Your task to perform on an android device: open a new tab in the chrome app Image 0: 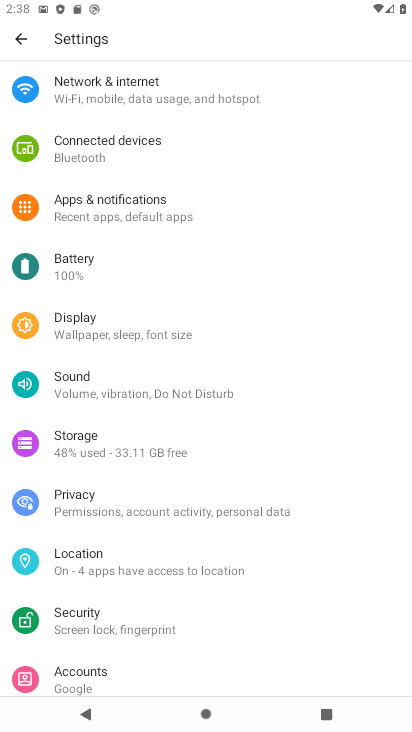
Step 0: press home button
Your task to perform on an android device: open a new tab in the chrome app Image 1: 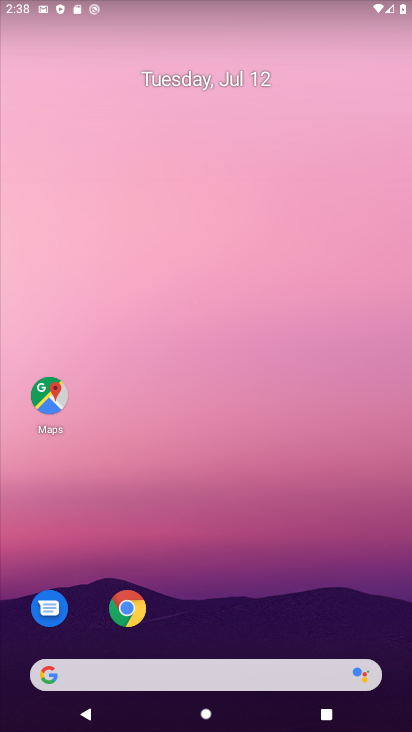
Step 1: click (127, 607)
Your task to perform on an android device: open a new tab in the chrome app Image 2: 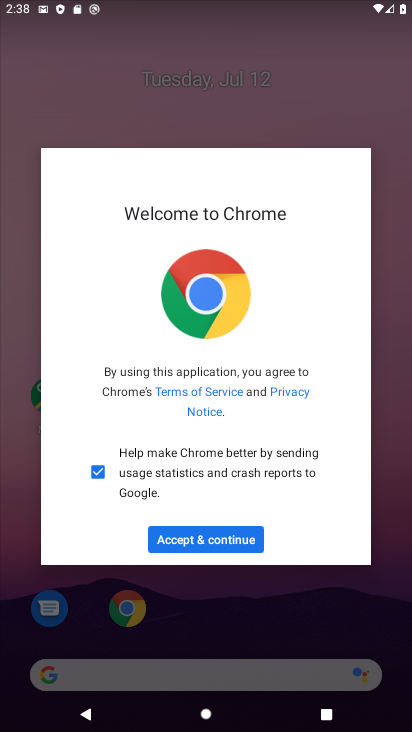
Step 2: click (238, 538)
Your task to perform on an android device: open a new tab in the chrome app Image 3: 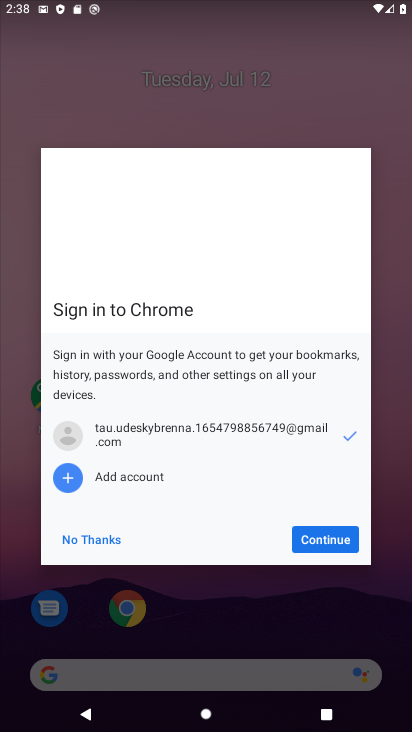
Step 3: click (310, 535)
Your task to perform on an android device: open a new tab in the chrome app Image 4: 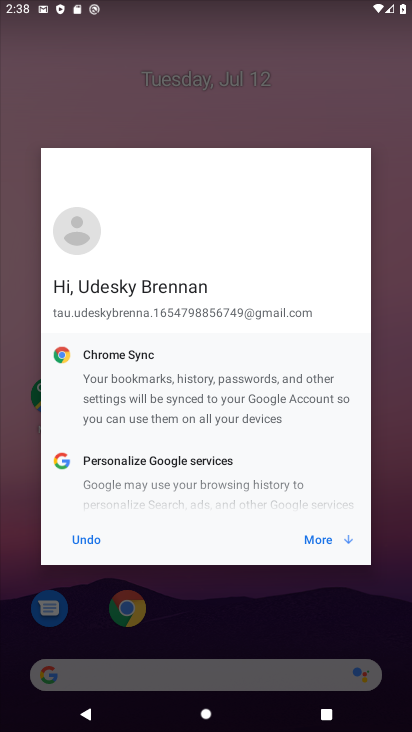
Step 4: click (322, 537)
Your task to perform on an android device: open a new tab in the chrome app Image 5: 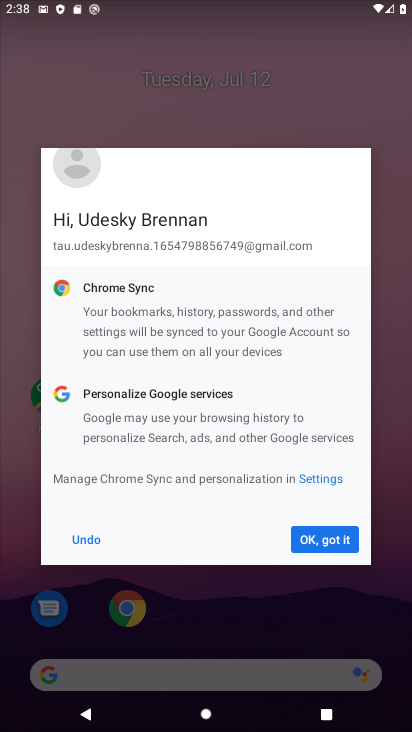
Step 5: click (325, 538)
Your task to perform on an android device: open a new tab in the chrome app Image 6: 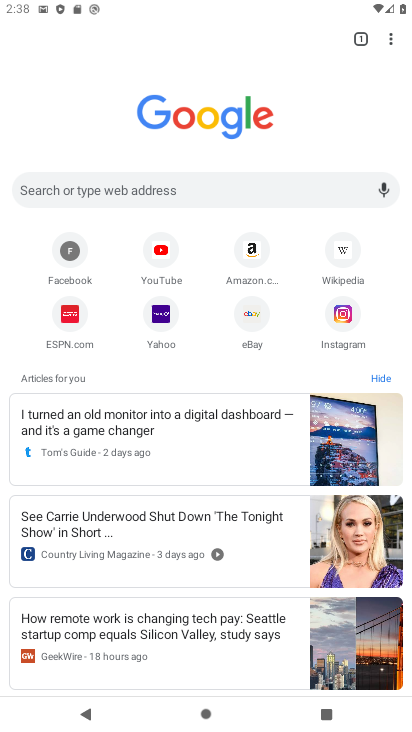
Step 6: click (389, 42)
Your task to perform on an android device: open a new tab in the chrome app Image 7: 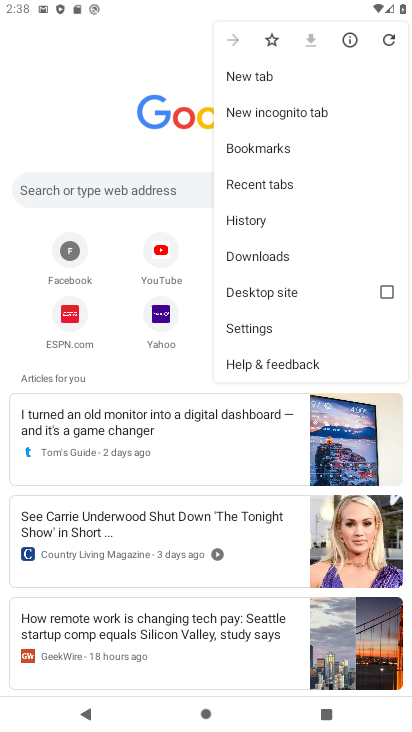
Step 7: click (293, 72)
Your task to perform on an android device: open a new tab in the chrome app Image 8: 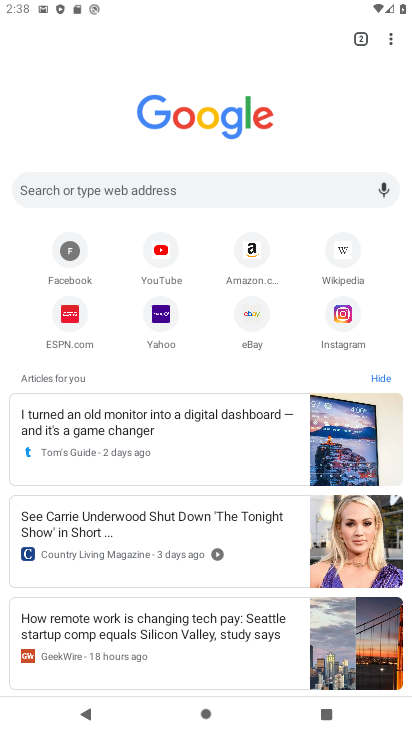
Step 8: task complete